Your task to perform on an android device: Go to eBay Image 0: 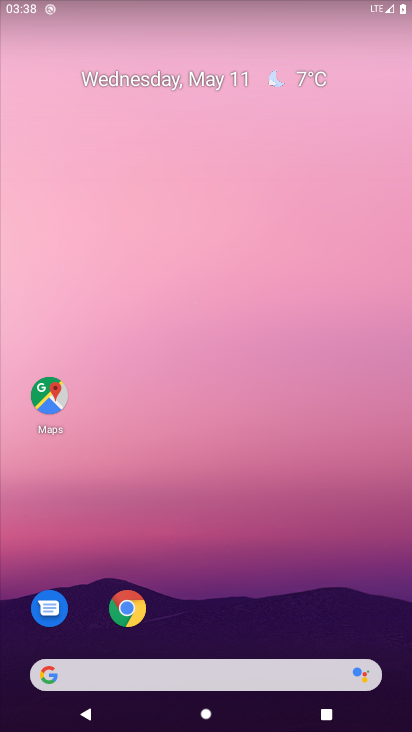
Step 0: press home button
Your task to perform on an android device: Go to eBay Image 1: 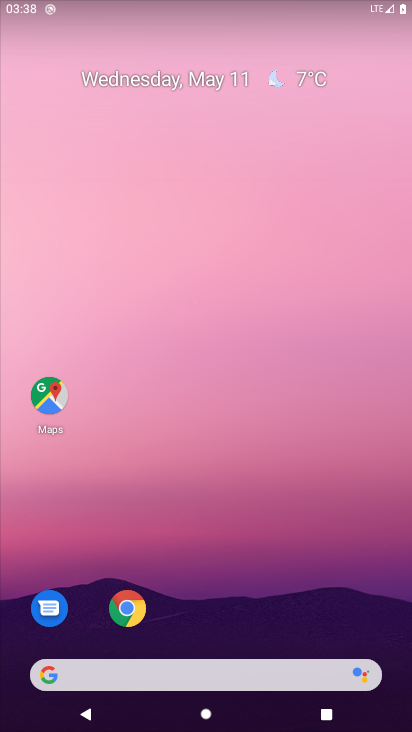
Step 1: click (137, 604)
Your task to perform on an android device: Go to eBay Image 2: 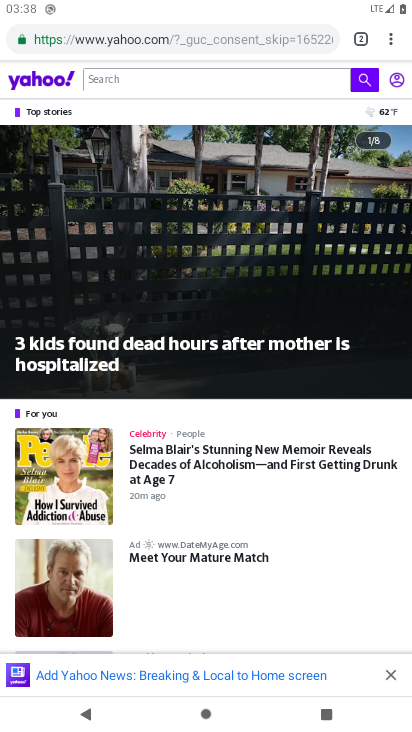
Step 2: click (360, 42)
Your task to perform on an android device: Go to eBay Image 3: 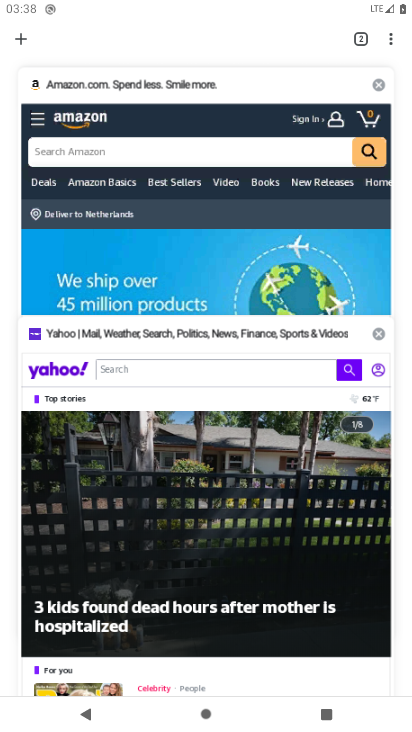
Step 3: click (375, 80)
Your task to perform on an android device: Go to eBay Image 4: 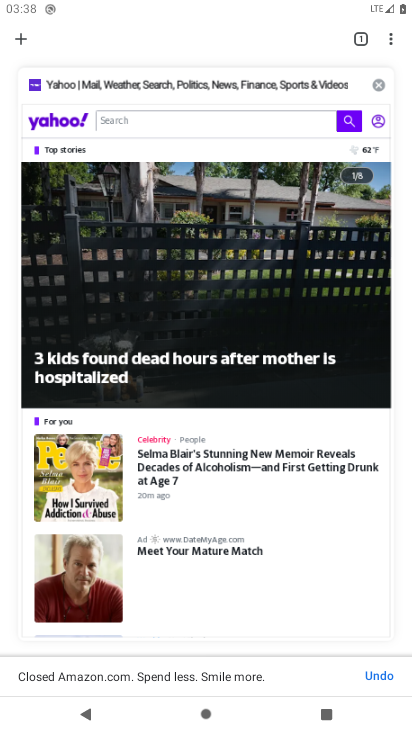
Step 4: click (375, 80)
Your task to perform on an android device: Go to eBay Image 5: 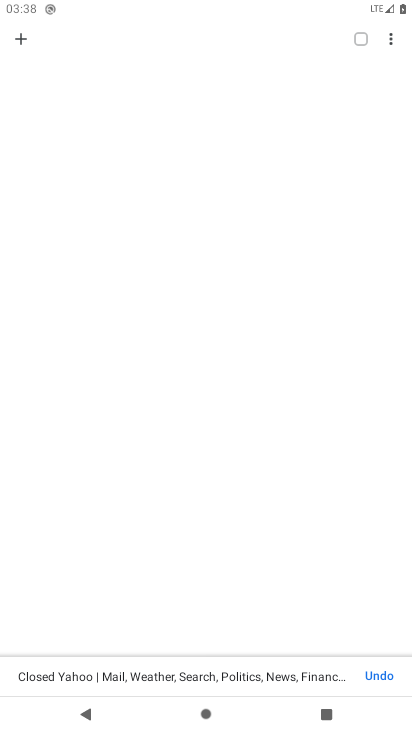
Step 5: click (30, 40)
Your task to perform on an android device: Go to eBay Image 6: 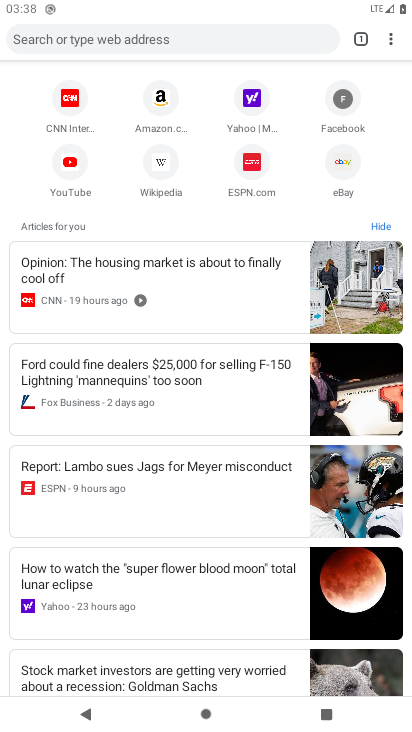
Step 6: click (335, 160)
Your task to perform on an android device: Go to eBay Image 7: 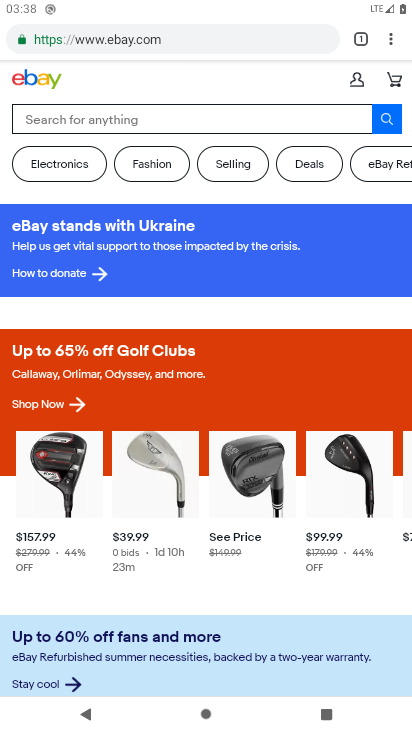
Step 7: task complete